Your task to perform on an android device: toggle javascript in the chrome app Image 0: 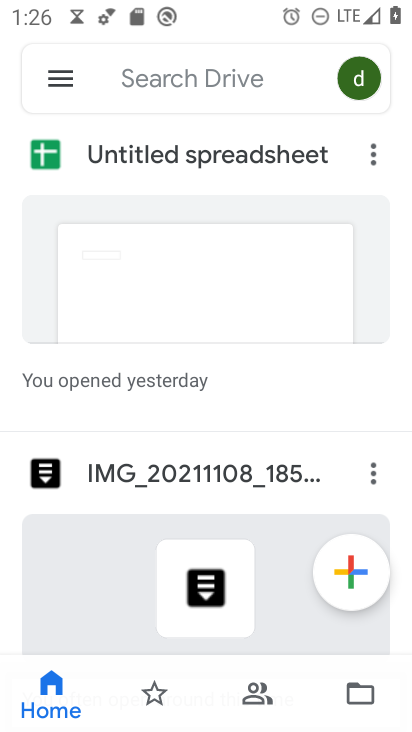
Step 0: press home button
Your task to perform on an android device: toggle javascript in the chrome app Image 1: 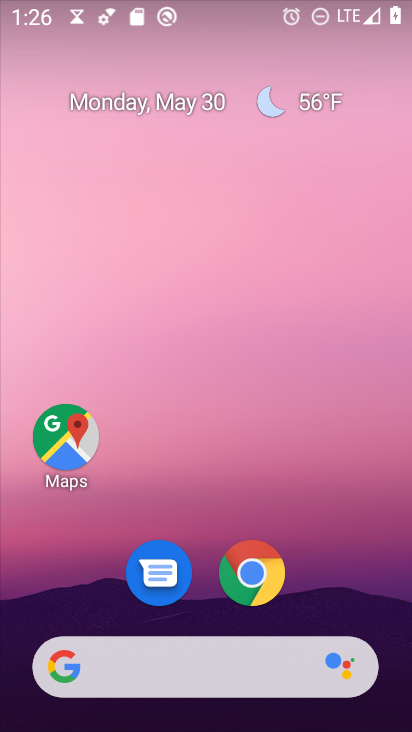
Step 1: drag from (172, 650) to (316, 18)
Your task to perform on an android device: toggle javascript in the chrome app Image 2: 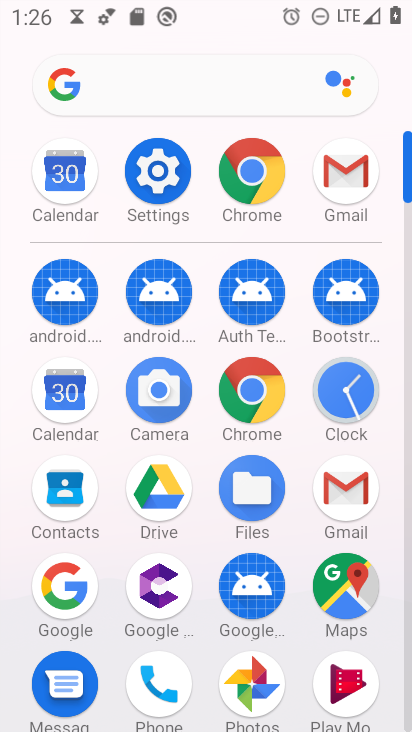
Step 2: click (238, 386)
Your task to perform on an android device: toggle javascript in the chrome app Image 3: 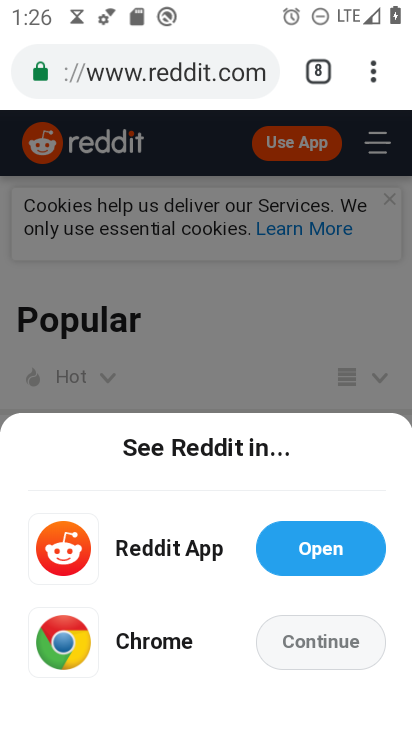
Step 3: drag from (370, 70) to (138, 572)
Your task to perform on an android device: toggle javascript in the chrome app Image 4: 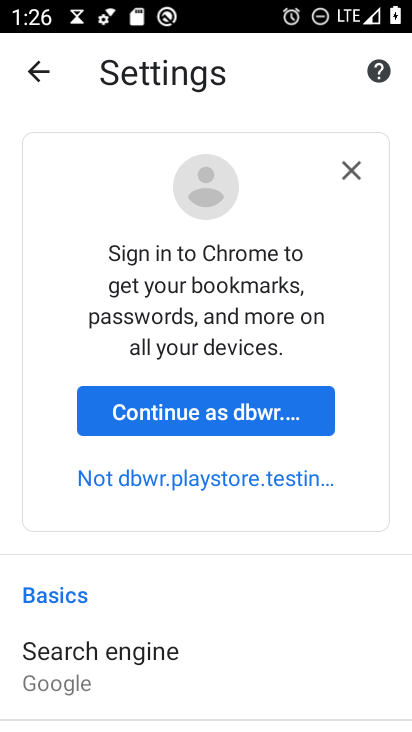
Step 4: drag from (227, 551) to (247, 4)
Your task to perform on an android device: toggle javascript in the chrome app Image 5: 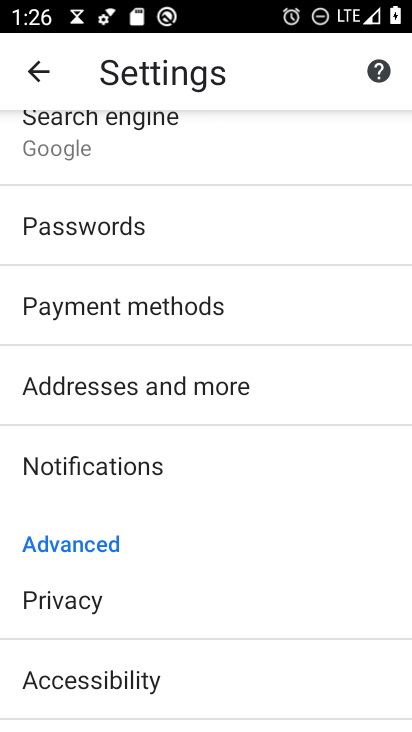
Step 5: drag from (213, 654) to (236, 292)
Your task to perform on an android device: toggle javascript in the chrome app Image 6: 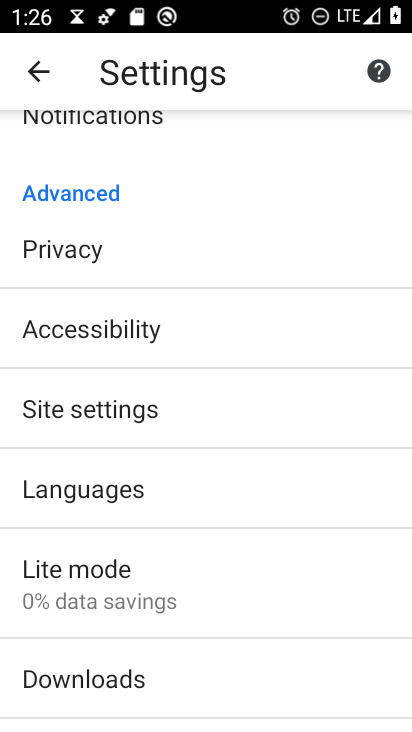
Step 6: click (146, 408)
Your task to perform on an android device: toggle javascript in the chrome app Image 7: 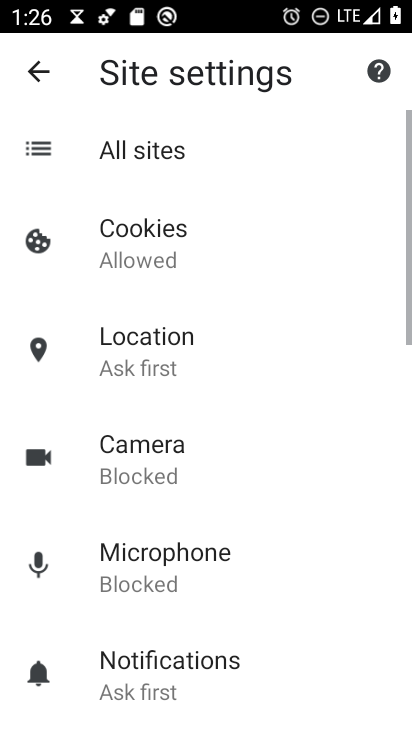
Step 7: drag from (189, 643) to (195, 357)
Your task to perform on an android device: toggle javascript in the chrome app Image 8: 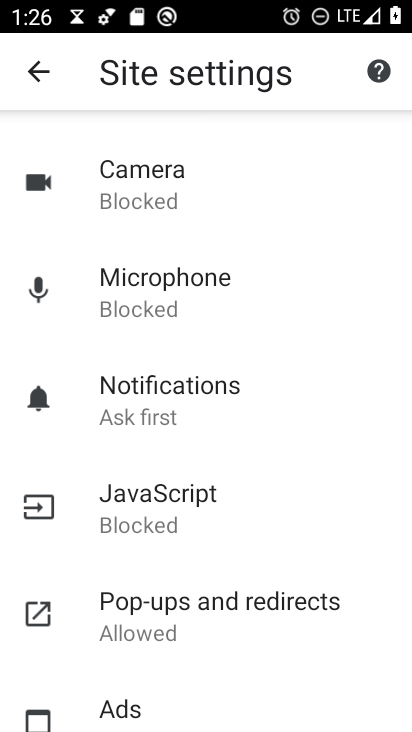
Step 8: click (181, 506)
Your task to perform on an android device: toggle javascript in the chrome app Image 9: 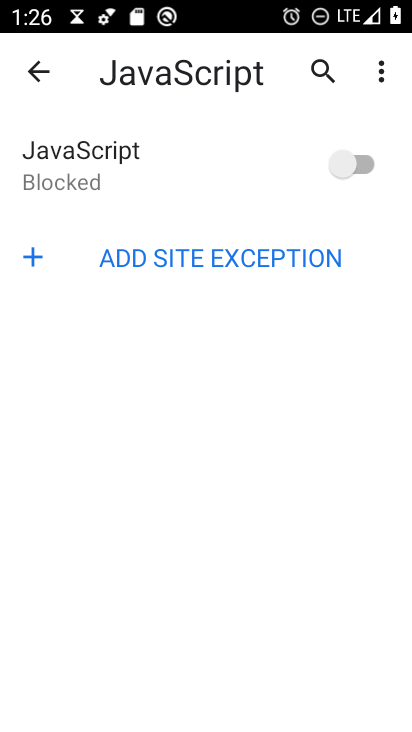
Step 9: task complete